Your task to perform on an android device: Do I have any events tomorrow? Image 0: 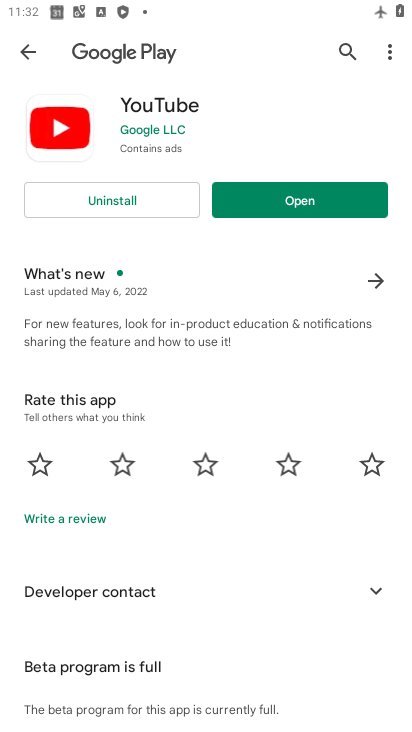
Step 0: press home button
Your task to perform on an android device: Do I have any events tomorrow? Image 1: 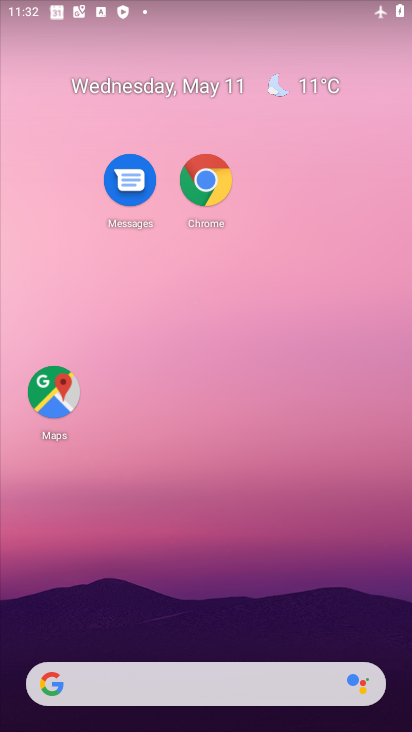
Step 1: drag from (228, 586) to (293, 125)
Your task to perform on an android device: Do I have any events tomorrow? Image 2: 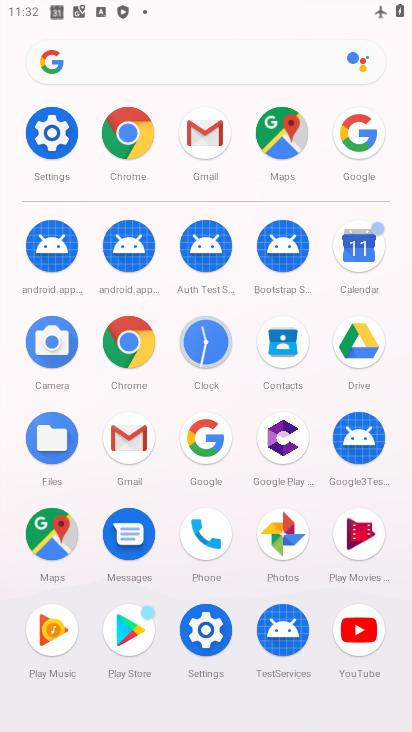
Step 2: click (351, 265)
Your task to perform on an android device: Do I have any events tomorrow? Image 3: 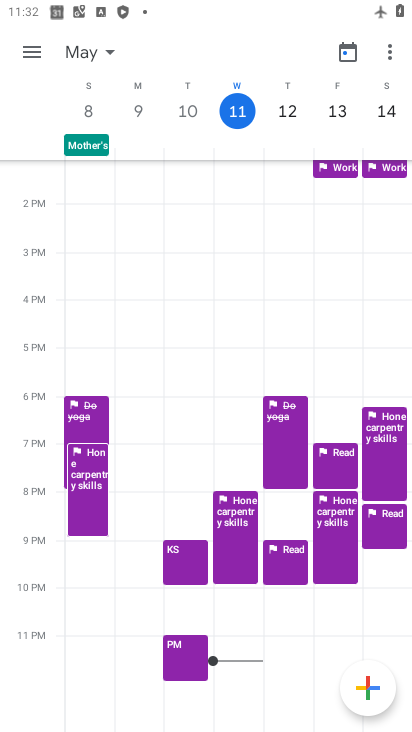
Step 3: click (284, 109)
Your task to perform on an android device: Do I have any events tomorrow? Image 4: 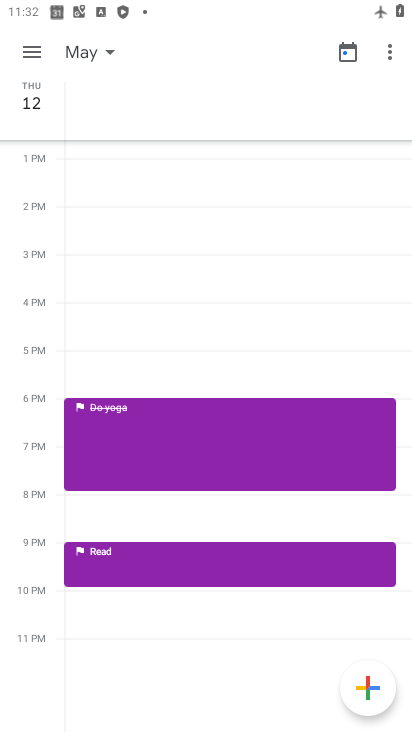
Step 4: task complete